Your task to perform on an android device: Go to calendar. Show me events next week Image 0: 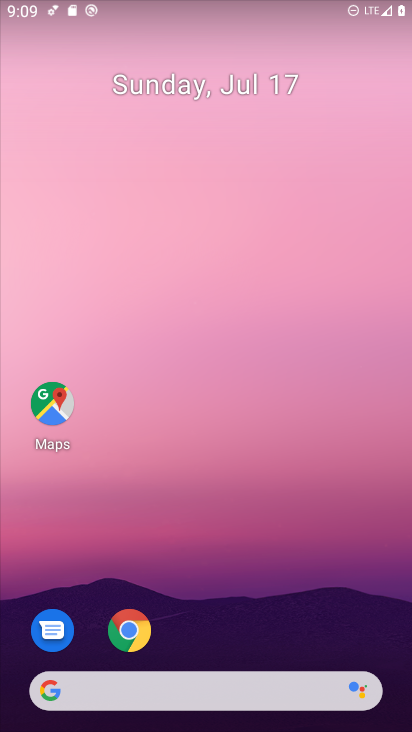
Step 0: drag from (208, 621) to (211, 83)
Your task to perform on an android device: Go to calendar. Show me events next week Image 1: 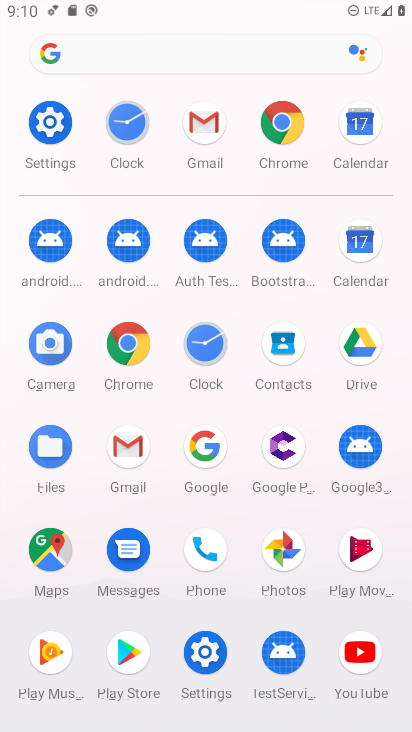
Step 1: click (349, 251)
Your task to perform on an android device: Go to calendar. Show me events next week Image 2: 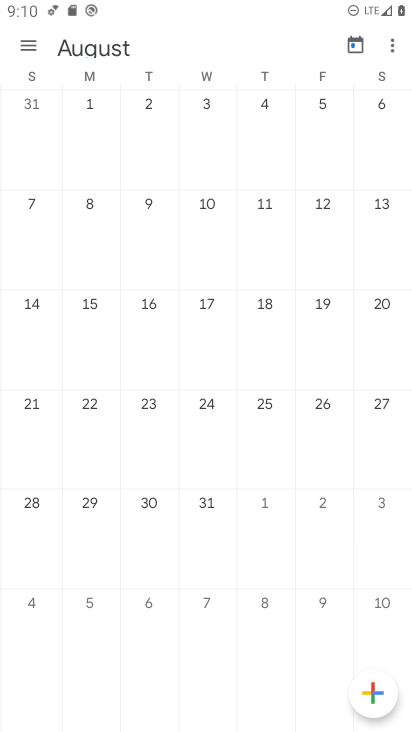
Step 2: click (28, 47)
Your task to perform on an android device: Go to calendar. Show me events next week Image 3: 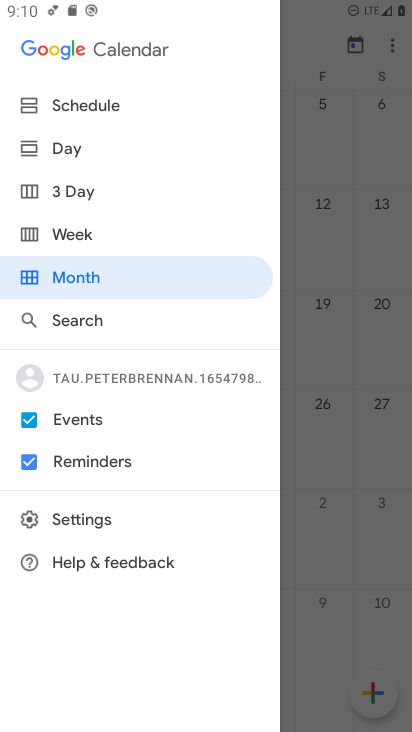
Step 3: click (133, 279)
Your task to perform on an android device: Go to calendar. Show me events next week Image 4: 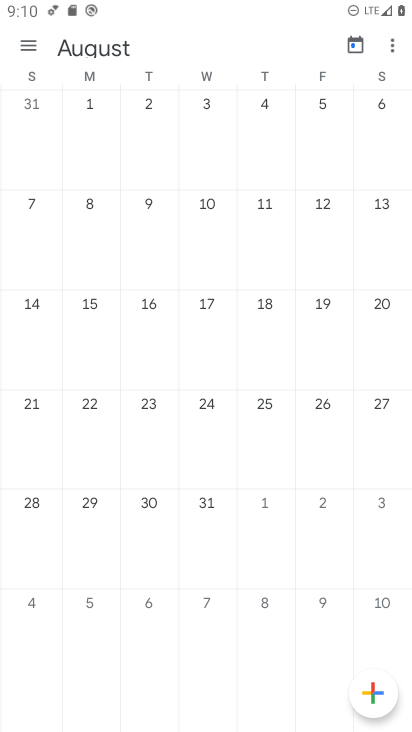
Step 4: drag from (53, 291) to (382, 314)
Your task to perform on an android device: Go to calendar. Show me events next week Image 5: 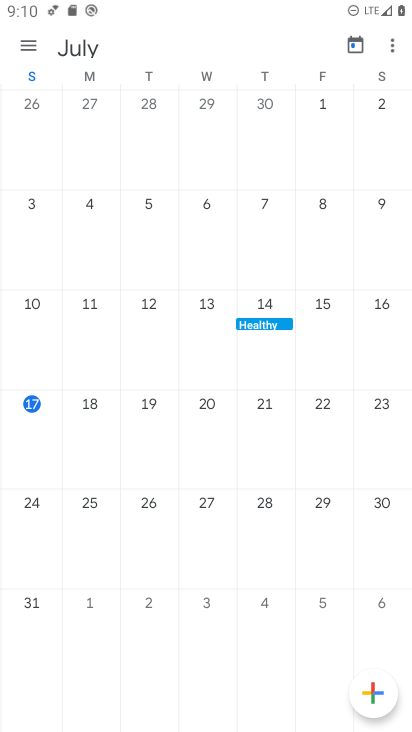
Step 5: click (26, 43)
Your task to perform on an android device: Go to calendar. Show me events next week Image 6: 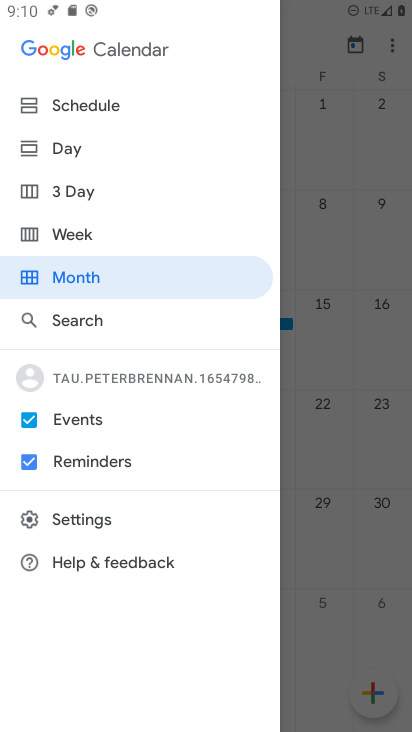
Step 6: click (87, 241)
Your task to perform on an android device: Go to calendar. Show me events next week Image 7: 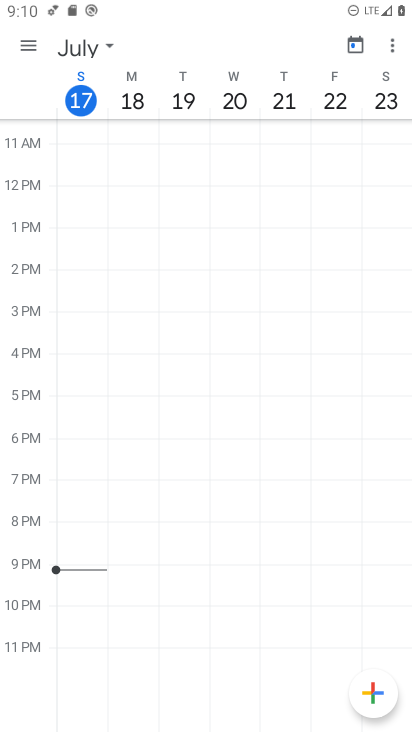
Step 7: task complete